Your task to perform on an android device: Open the calendar app, open the side menu, and click the "Day" option Image 0: 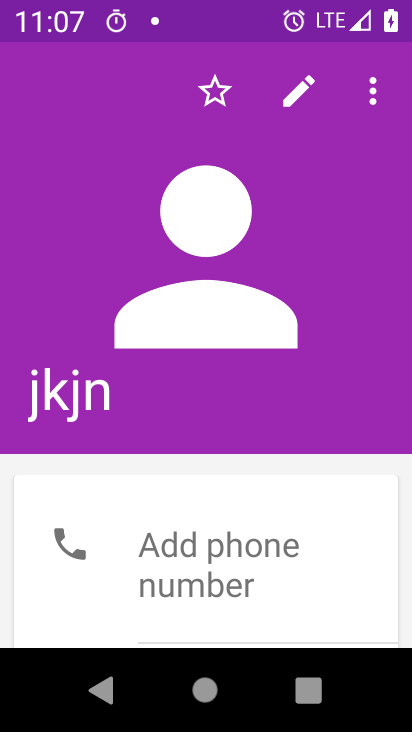
Step 0: drag from (231, 527) to (273, 195)
Your task to perform on an android device: Open the calendar app, open the side menu, and click the "Day" option Image 1: 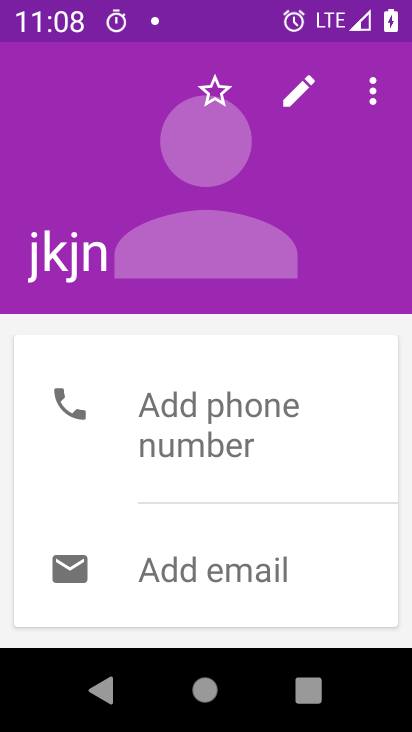
Step 1: press home button
Your task to perform on an android device: Open the calendar app, open the side menu, and click the "Day" option Image 2: 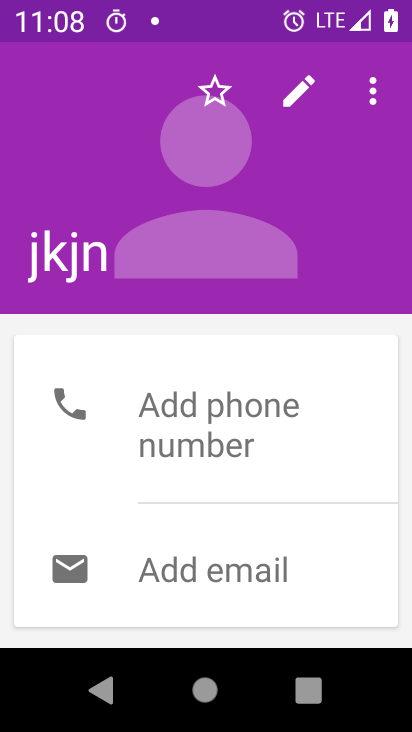
Step 2: drag from (317, 377) to (317, 11)
Your task to perform on an android device: Open the calendar app, open the side menu, and click the "Day" option Image 3: 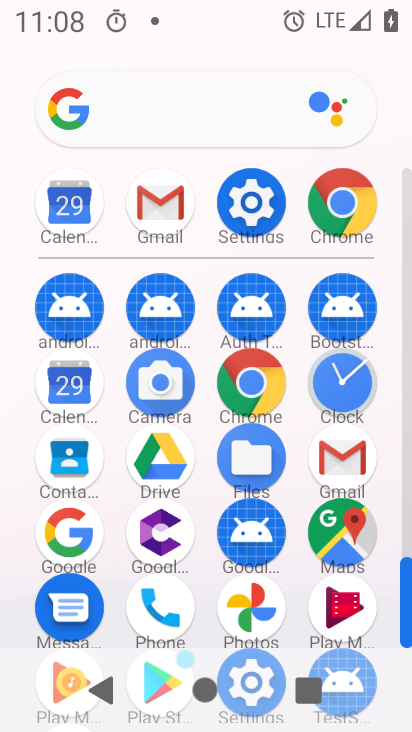
Step 3: click (67, 388)
Your task to perform on an android device: Open the calendar app, open the side menu, and click the "Day" option Image 4: 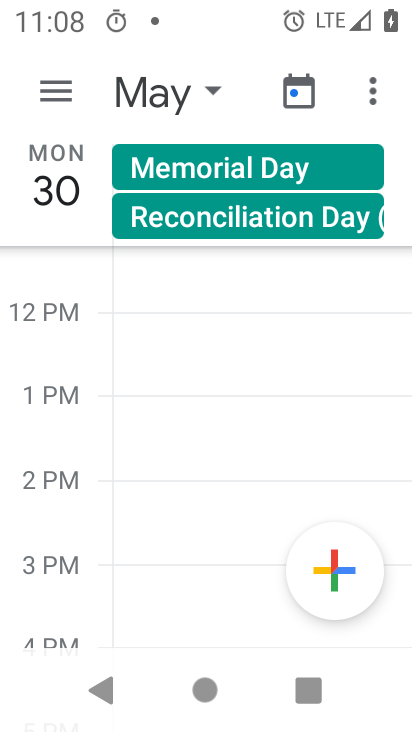
Step 4: click (55, 90)
Your task to perform on an android device: Open the calendar app, open the side menu, and click the "Day" option Image 5: 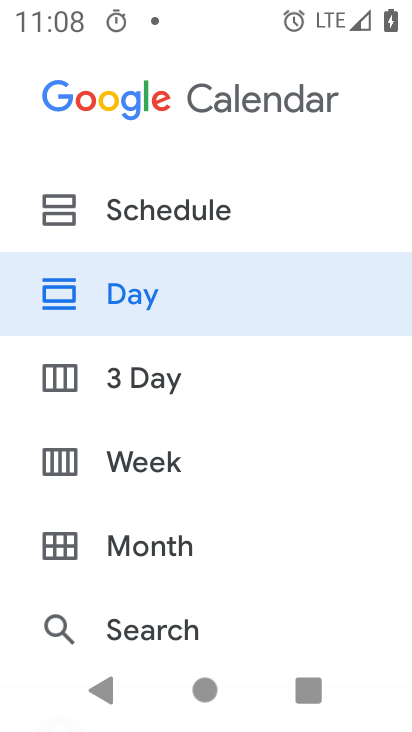
Step 5: click (121, 286)
Your task to perform on an android device: Open the calendar app, open the side menu, and click the "Day" option Image 6: 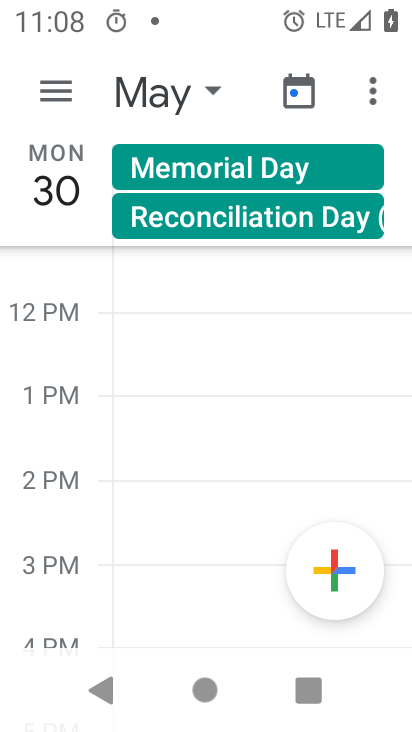
Step 6: task complete